Your task to perform on an android device: Go to Maps Image 0: 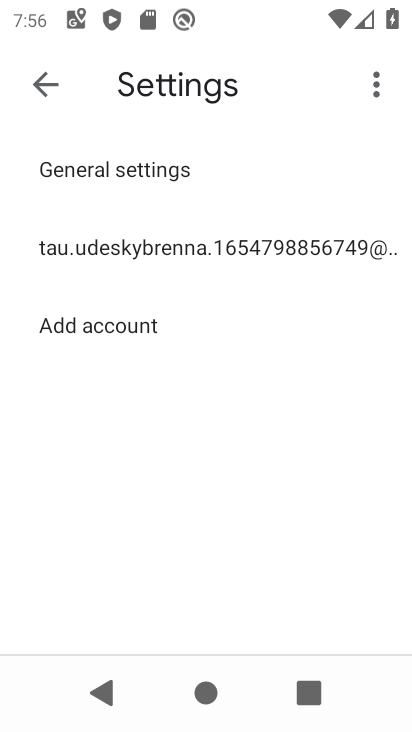
Step 0: press home button
Your task to perform on an android device: Go to Maps Image 1: 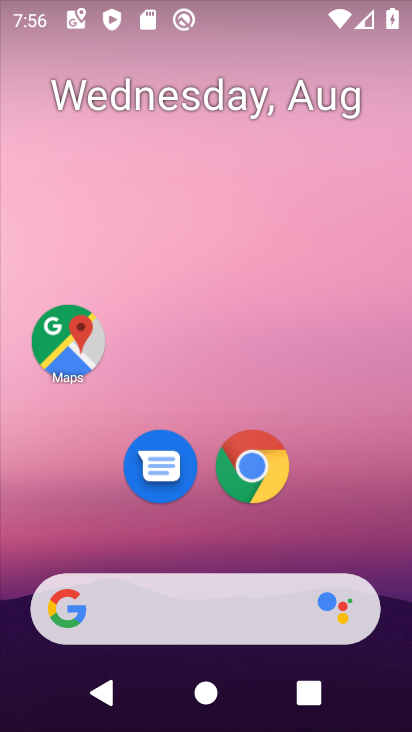
Step 1: drag from (333, 499) to (341, 28)
Your task to perform on an android device: Go to Maps Image 2: 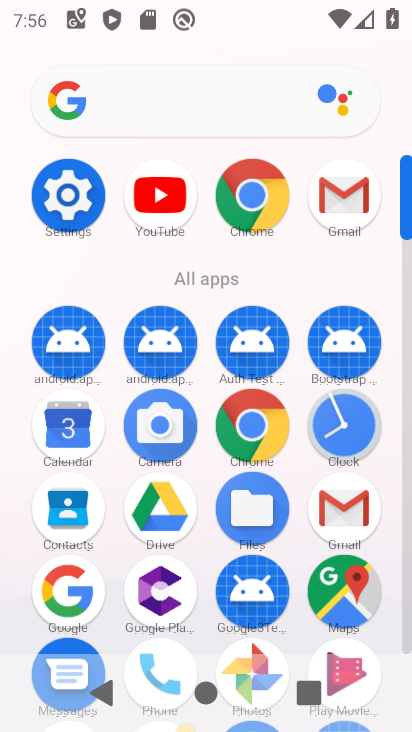
Step 2: click (353, 562)
Your task to perform on an android device: Go to Maps Image 3: 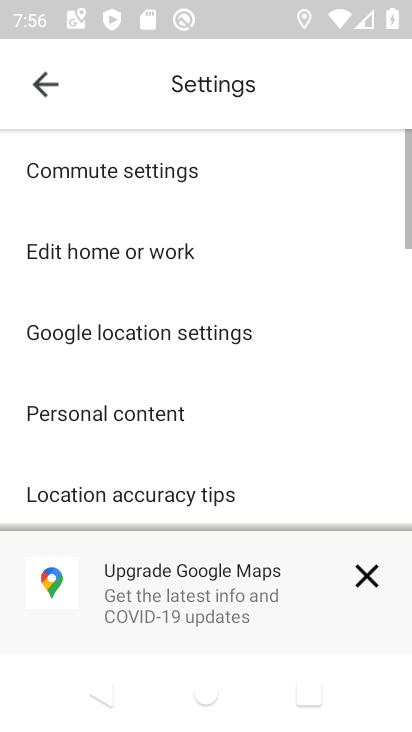
Step 3: task complete